Your task to perform on an android device: Open wifi settings Image 0: 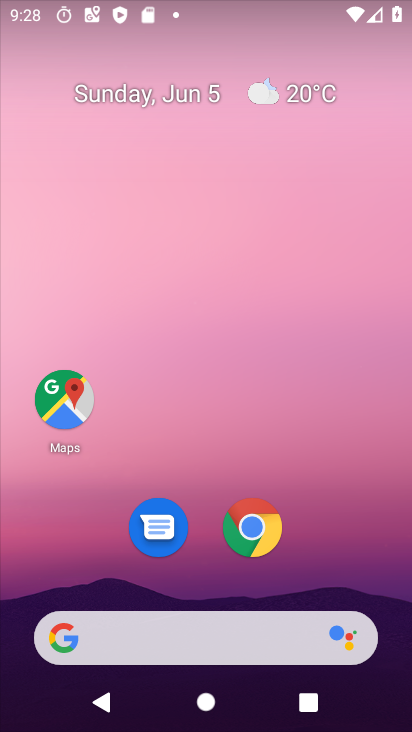
Step 0: drag from (364, 494) to (385, 68)
Your task to perform on an android device: Open wifi settings Image 1: 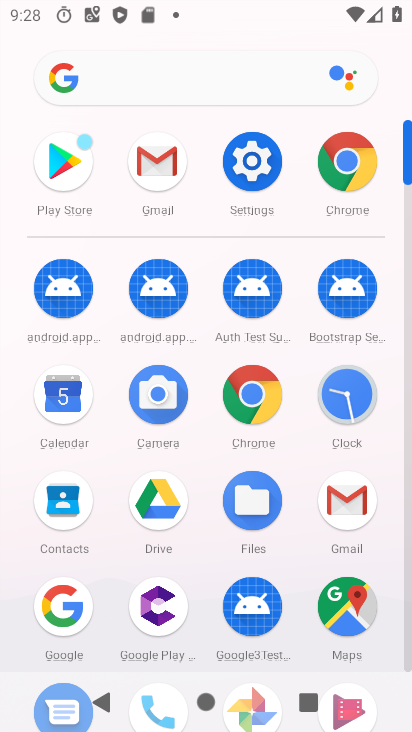
Step 1: click (266, 170)
Your task to perform on an android device: Open wifi settings Image 2: 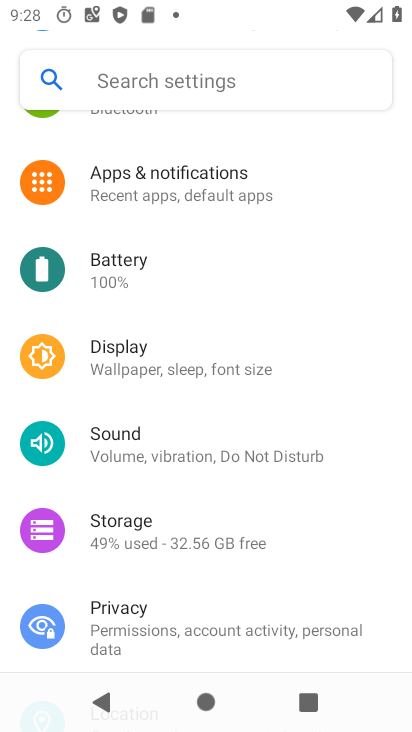
Step 2: drag from (140, 138) to (156, 636)
Your task to perform on an android device: Open wifi settings Image 3: 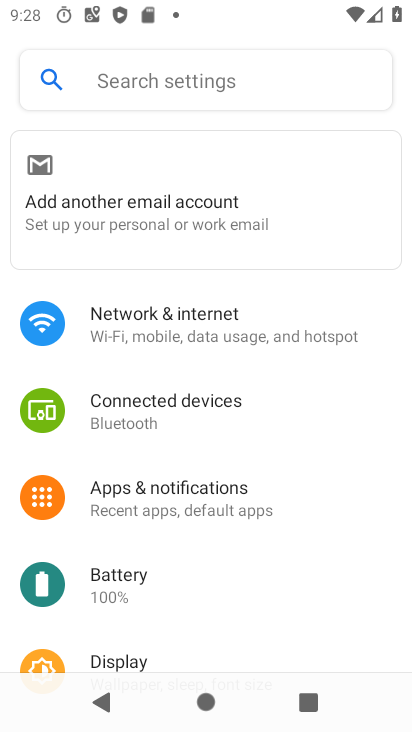
Step 3: click (155, 326)
Your task to perform on an android device: Open wifi settings Image 4: 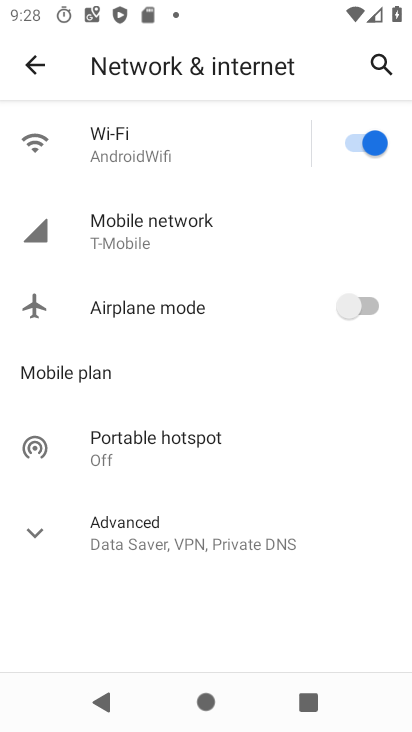
Step 4: click (147, 136)
Your task to perform on an android device: Open wifi settings Image 5: 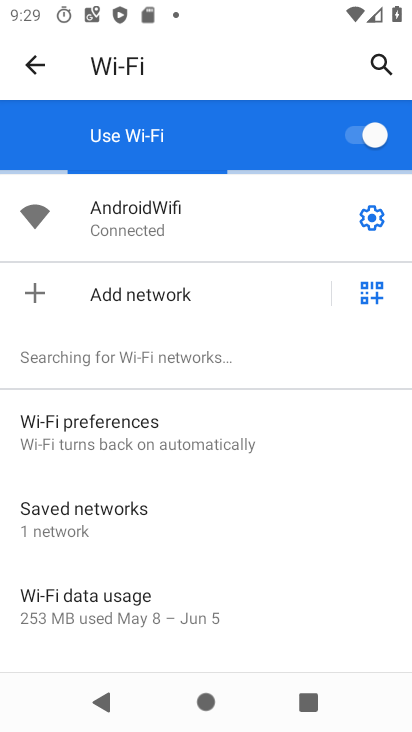
Step 5: task complete